Your task to perform on an android device: What's the weather? Image 0: 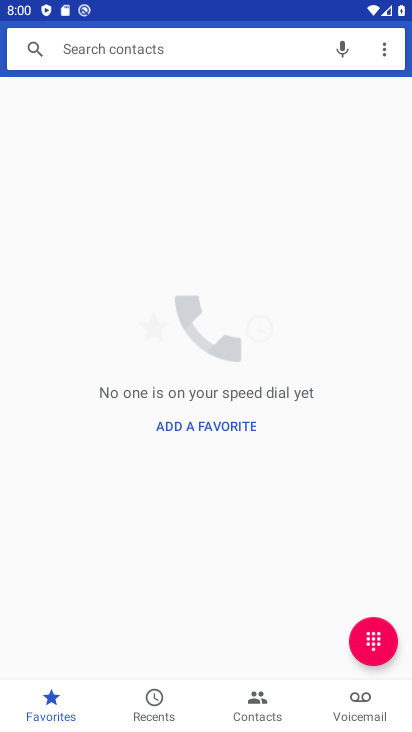
Step 0: press home button
Your task to perform on an android device: What's the weather? Image 1: 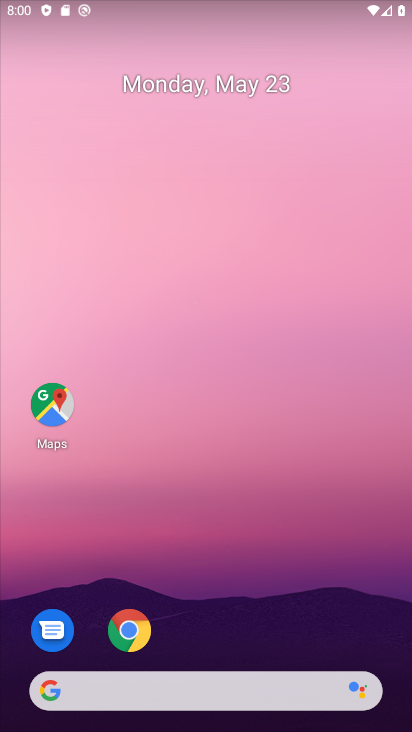
Step 1: click (167, 691)
Your task to perform on an android device: What's the weather? Image 2: 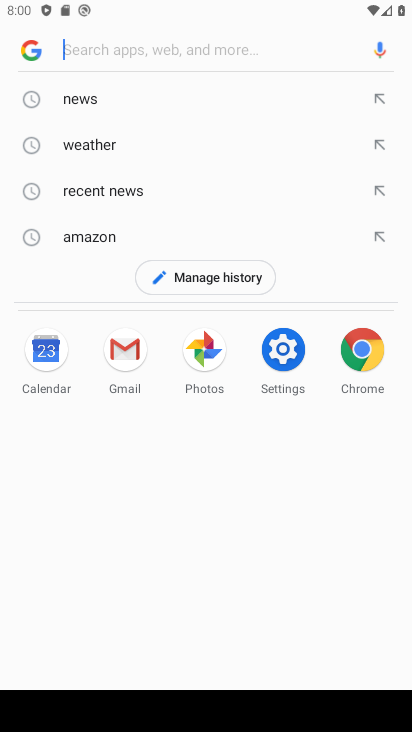
Step 2: click (113, 148)
Your task to perform on an android device: What's the weather? Image 3: 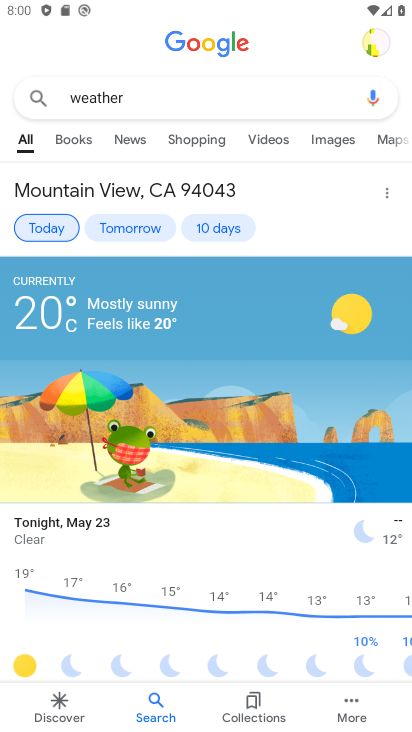
Step 3: task complete